Your task to perform on an android device: Open maps Image 0: 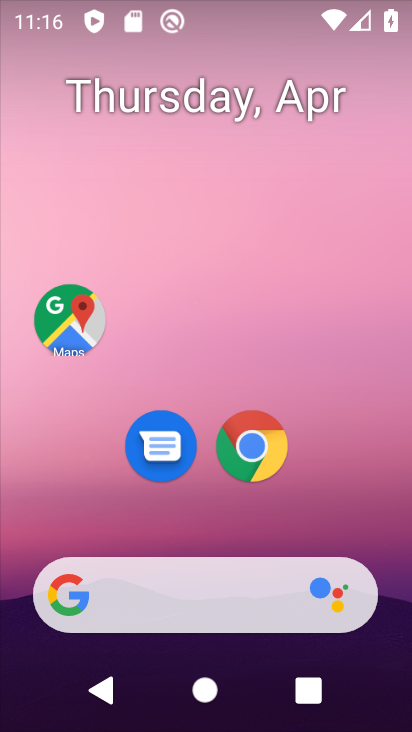
Step 0: click (70, 327)
Your task to perform on an android device: Open maps Image 1: 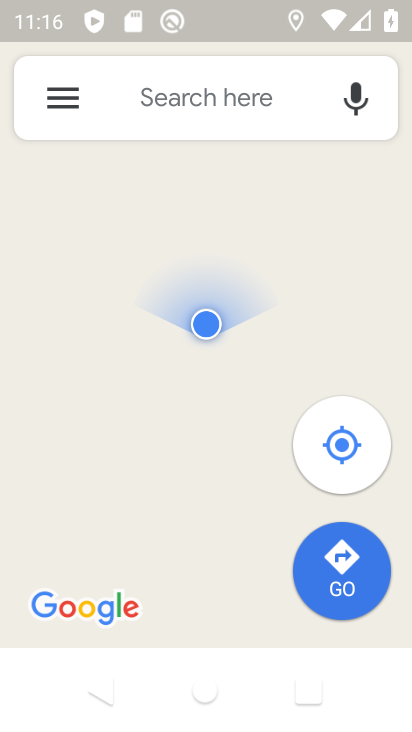
Step 1: task complete